Your task to perform on an android device: Go to Google maps Image 0: 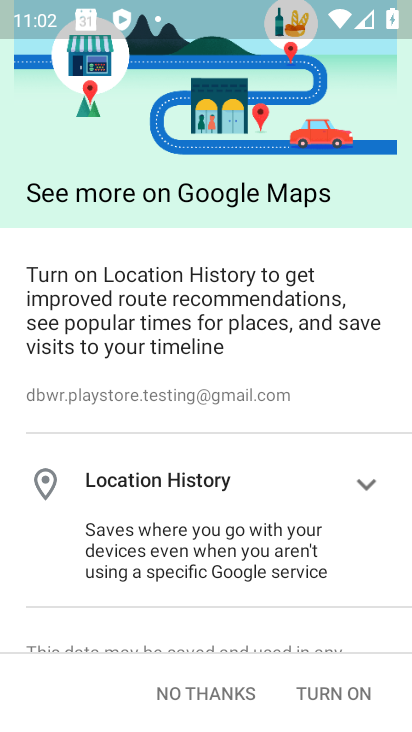
Step 0: click (185, 692)
Your task to perform on an android device: Go to Google maps Image 1: 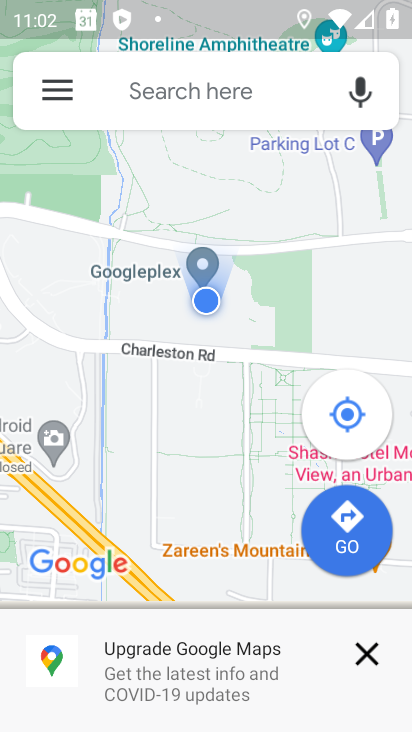
Step 1: task complete